Your task to perform on an android device: What's the weather today? Image 0: 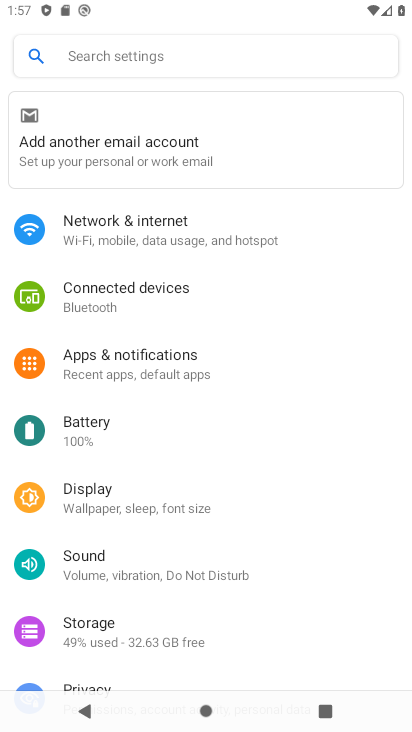
Step 0: press home button
Your task to perform on an android device: What's the weather today? Image 1: 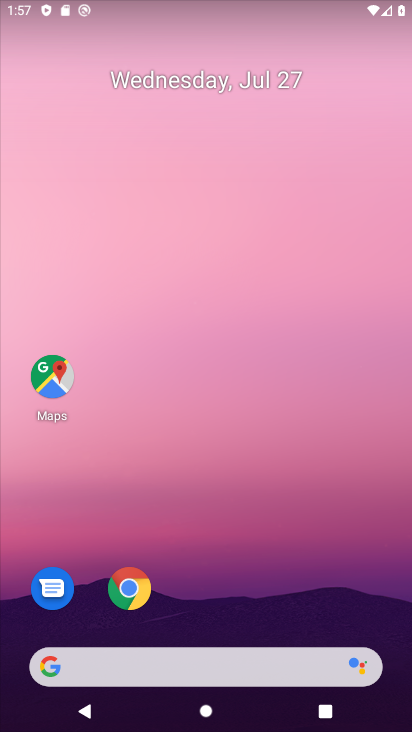
Step 1: drag from (257, 598) to (255, 129)
Your task to perform on an android device: What's the weather today? Image 2: 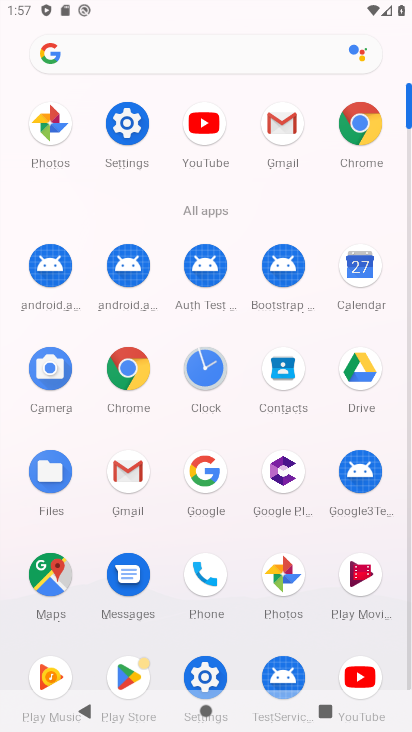
Step 2: click (198, 477)
Your task to perform on an android device: What's the weather today? Image 3: 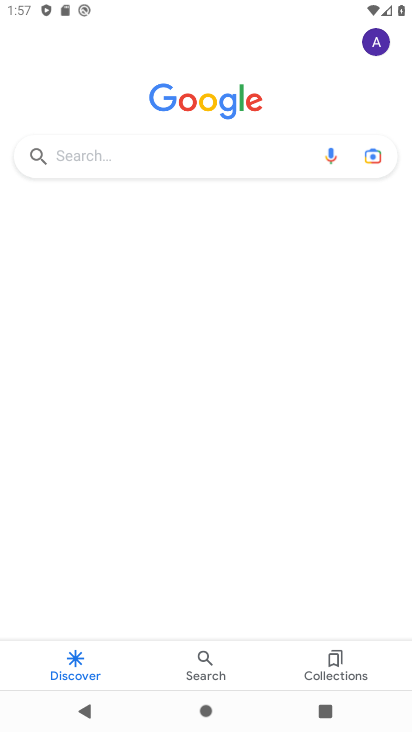
Step 3: click (161, 161)
Your task to perform on an android device: What's the weather today? Image 4: 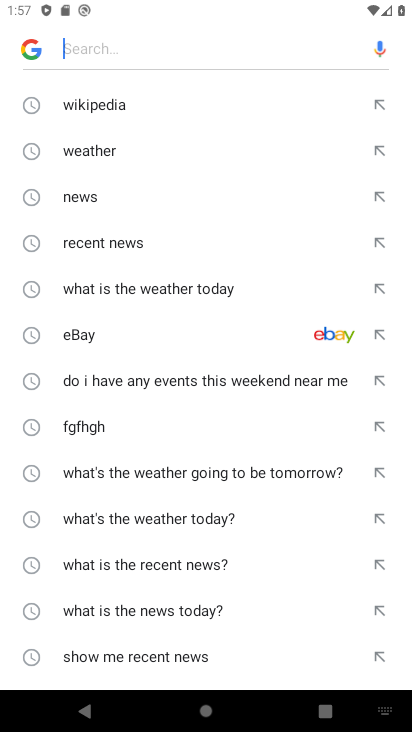
Step 4: click (132, 160)
Your task to perform on an android device: What's the weather today? Image 5: 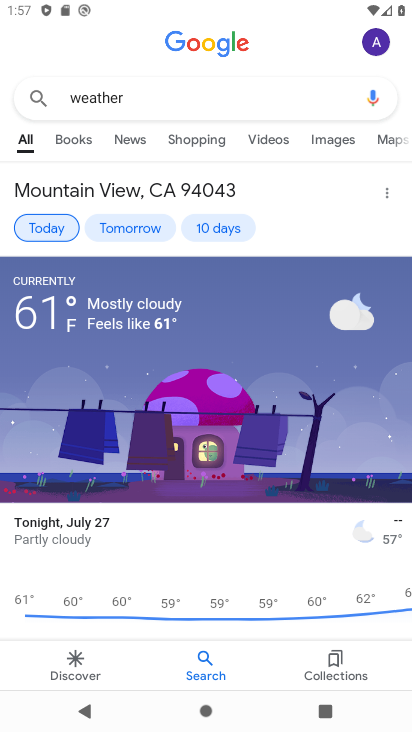
Step 5: task complete